Your task to perform on an android device: turn off notifications settings in the gmail app Image 0: 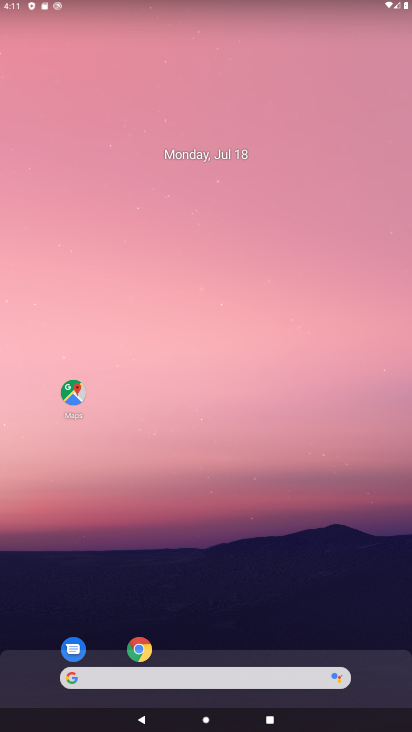
Step 0: drag from (197, 670) to (267, 160)
Your task to perform on an android device: turn off notifications settings in the gmail app Image 1: 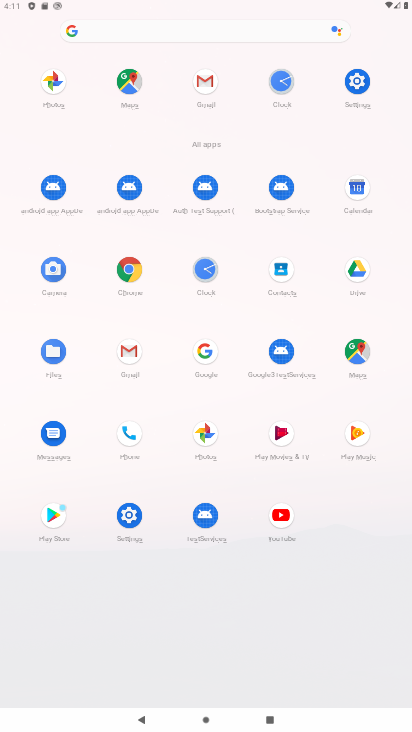
Step 1: click (124, 356)
Your task to perform on an android device: turn off notifications settings in the gmail app Image 2: 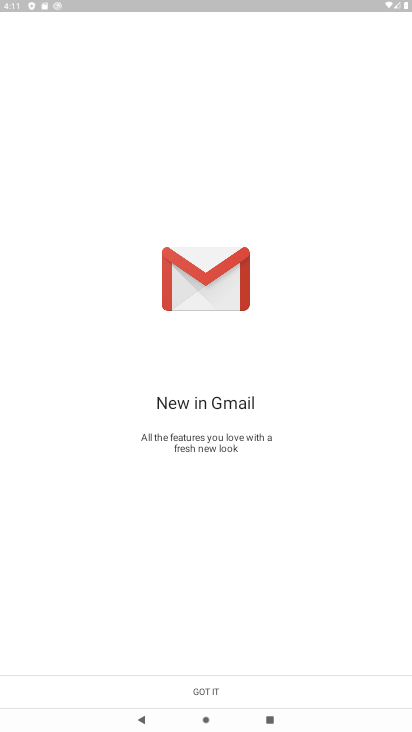
Step 2: click (203, 682)
Your task to perform on an android device: turn off notifications settings in the gmail app Image 3: 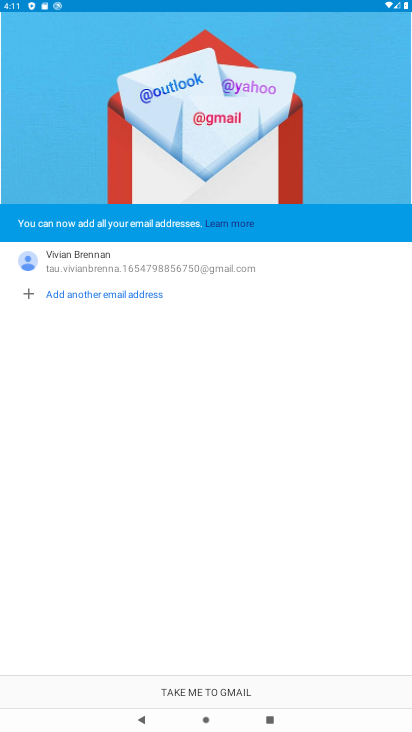
Step 3: click (207, 691)
Your task to perform on an android device: turn off notifications settings in the gmail app Image 4: 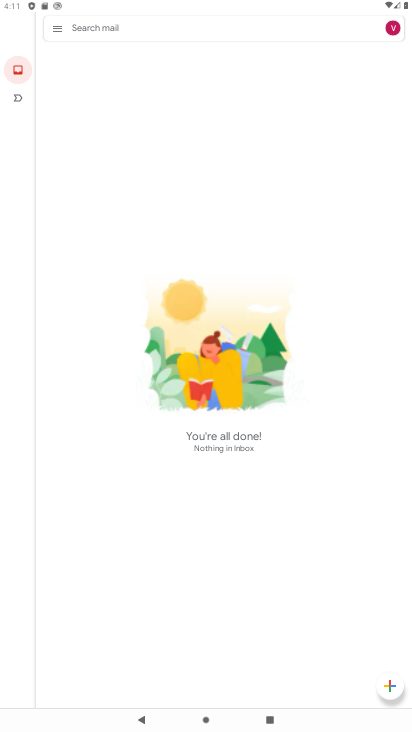
Step 4: click (50, 33)
Your task to perform on an android device: turn off notifications settings in the gmail app Image 5: 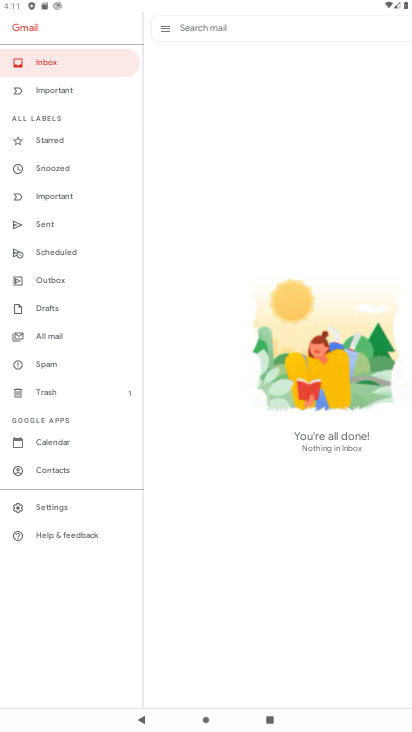
Step 5: click (61, 510)
Your task to perform on an android device: turn off notifications settings in the gmail app Image 6: 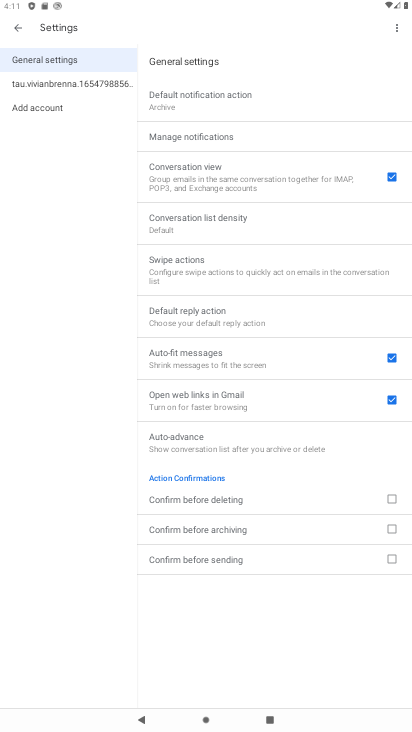
Step 6: click (170, 137)
Your task to perform on an android device: turn off notifications settings in the gmail app Image 7: 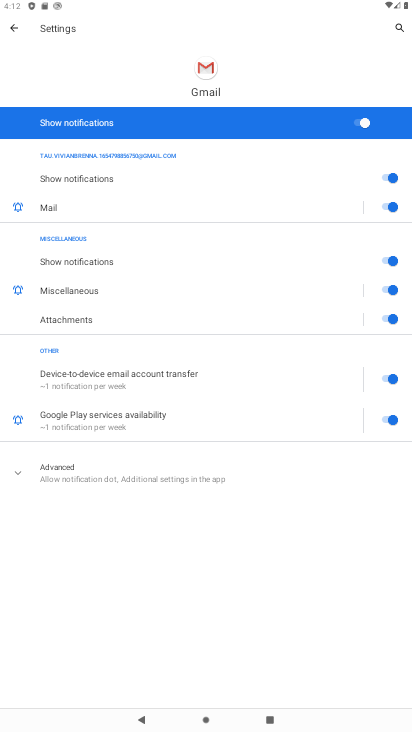
Step 7: click (345, 123)
Your task to perform on an android device: turn off notifications settings in the gmail app Image 8: 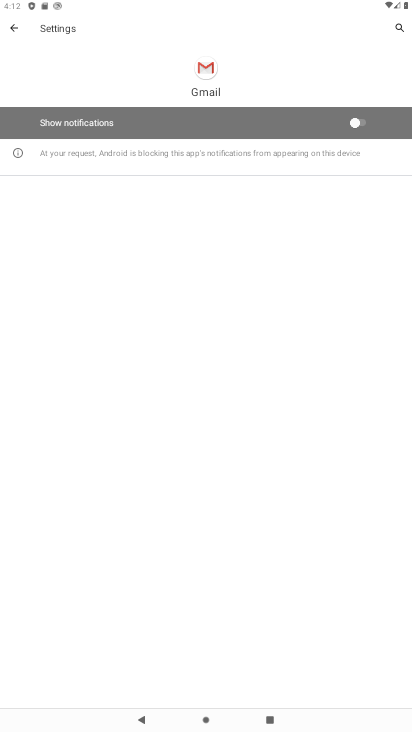
Step 8: task complete